Your task to perform on an android device: Search for sushi restaurants on Maps Image 0: 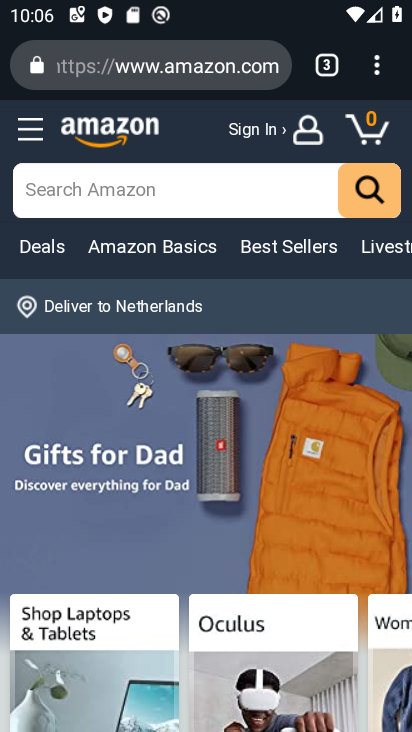
Step 0: press home button
Your task to perform on an android device: Search for sushi restaurants on Maps Image 1: 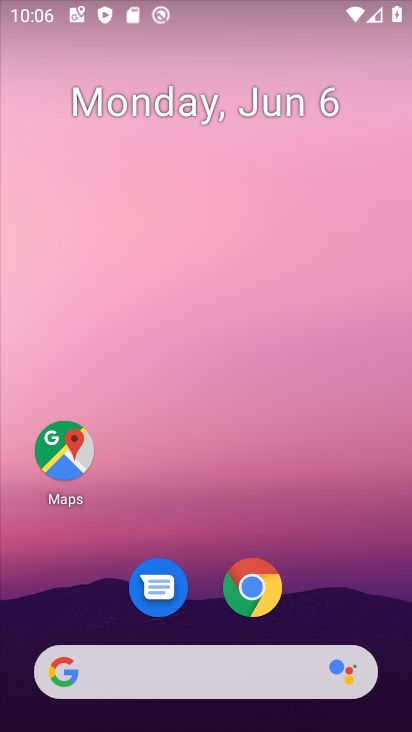
Step 1: click (59, 462)
Your task to perform on an android device: Search for sushi restaurants on Maps Image 2: 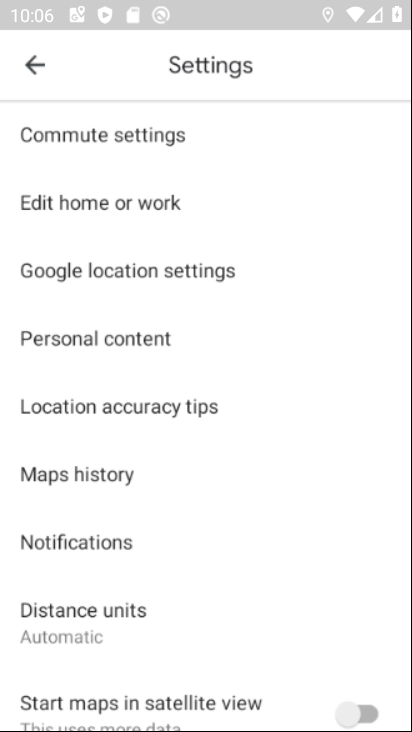
Step 2: click (35, 64)
Your task to perform on an android device: Search for sushi restaurants on Maps Image 3: 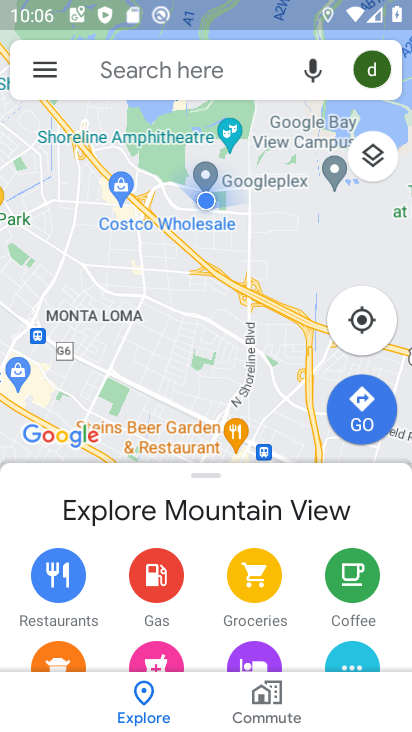
Step 3: click (153, 61)
Your task to perform on an android device: Search for sushi restaurants on Maps Image 4: 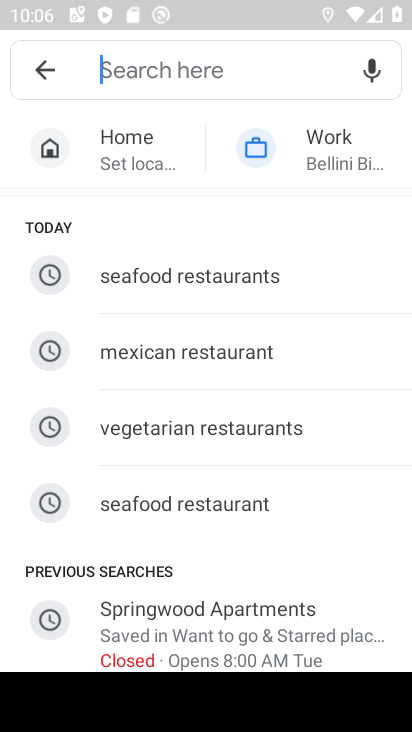
Step 4: type "sushi res"
Your task to perform on an android device: Search for sushi restaurants on Maps Image 5: 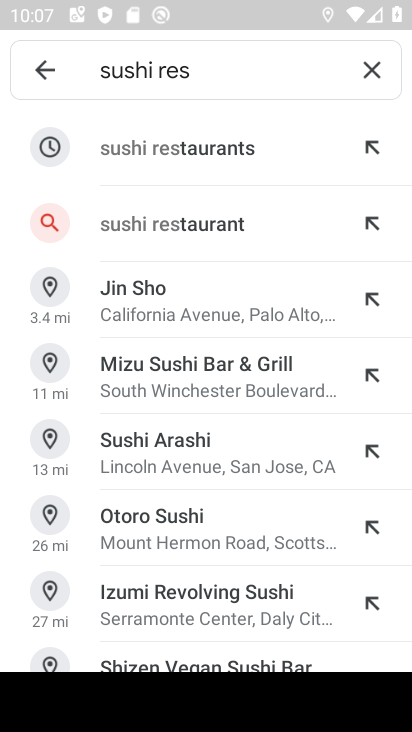
Step 5: click (277, 145)
Your task to perform on an android device: Search for sushi restaurants on Maps Image 6: 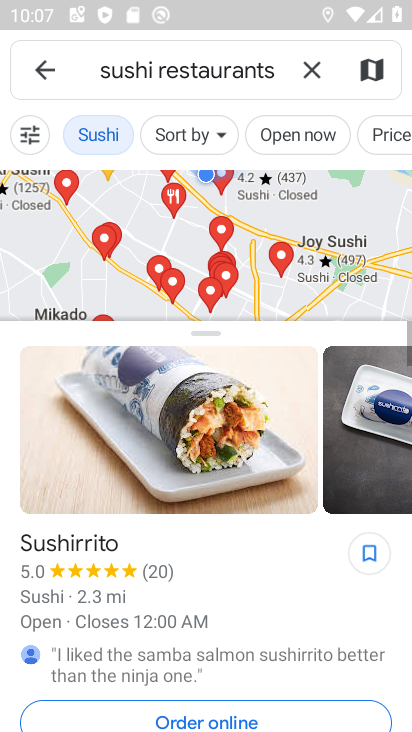
Step 6: task complete